Your task to perform on an android device: Open eBay Image 0: 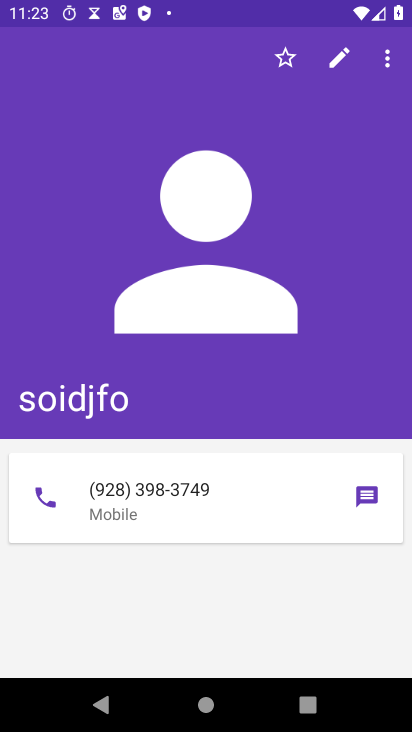
Step 0: press home button
Your task to perform on an android device: Open eBay Image 1: 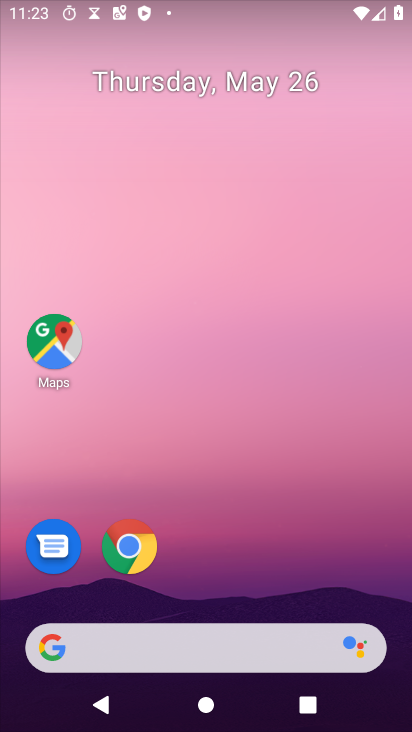
Step 1: drag from (358, 568) to (351, 89)
Your task to perform on an android device: Open eBay Image 2: 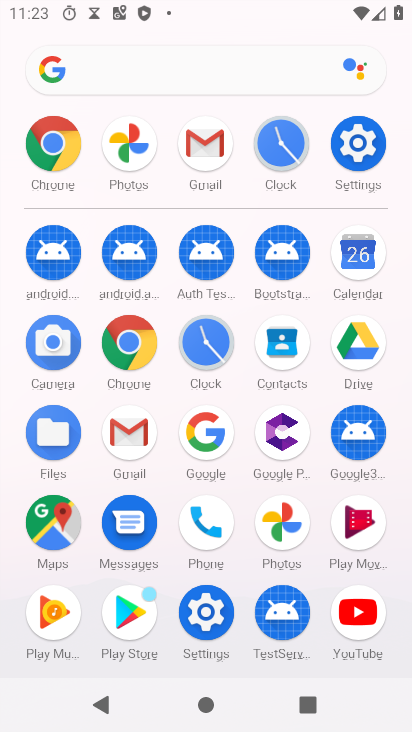
Step 2: click (142, 361)
Your task to perform on an android device: Open eBay Image 3: 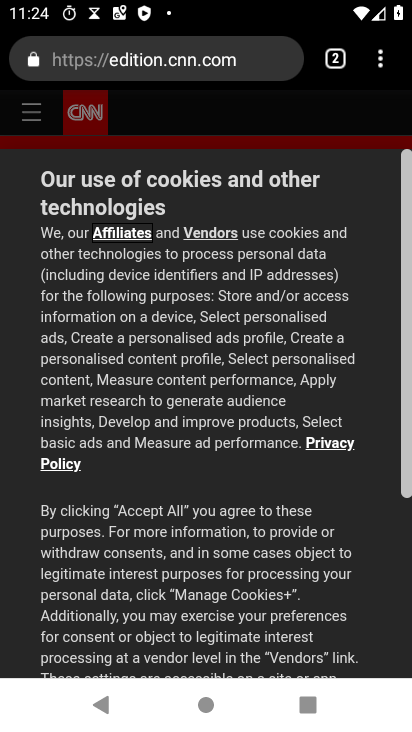
Step 3: click (225, 54)
Your task to perform on an android device: Open eBay Image 4: 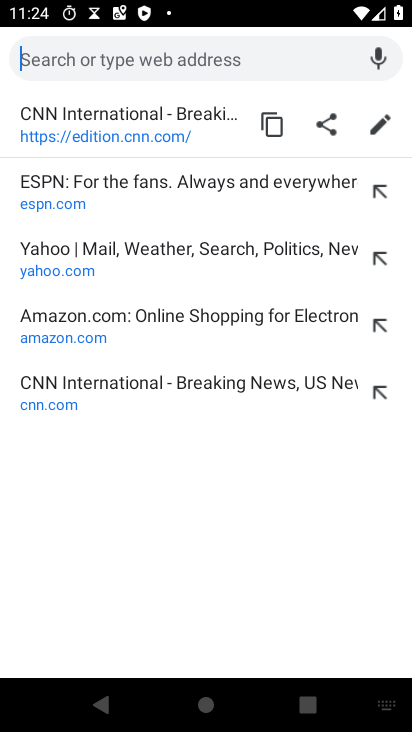
Step 4: type "ebay.com"
Your task to perform on an android device: Open eBay Image 5: 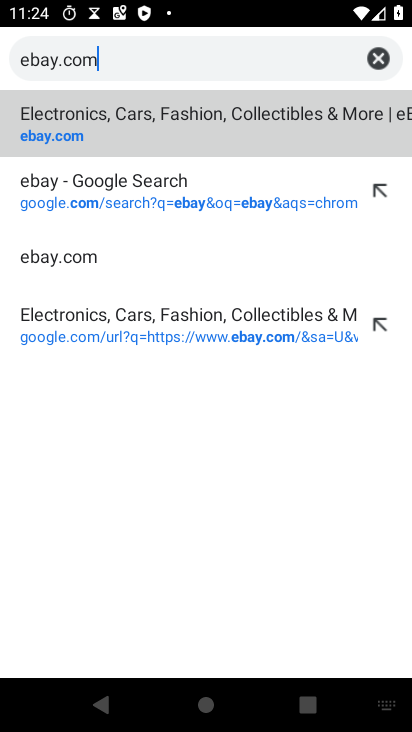
Step 5: click (95, 129)
Your task to perform on an android device: Open eBay Image 6: 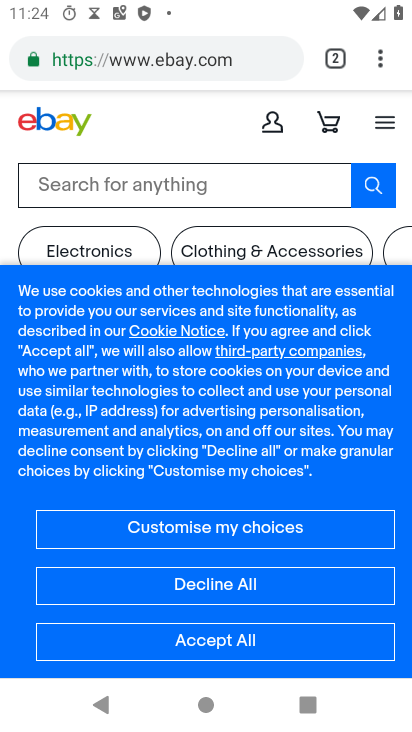
Step 6: task complete